Your task to perform on an android device: open wifi settings Image 0: 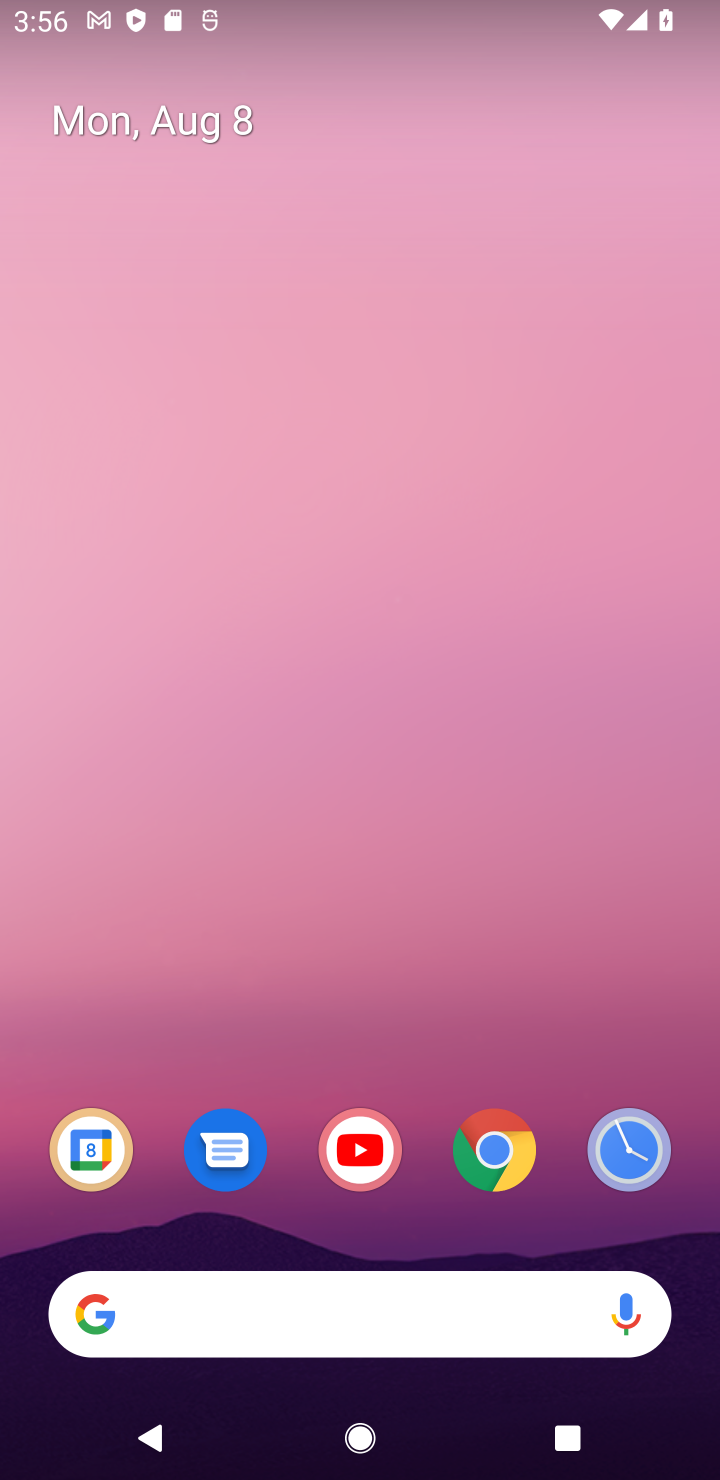
Step 0: drag from (425, 1245) to (431, 172)
Your task to perform on an android device: open wifi settings Image 1: 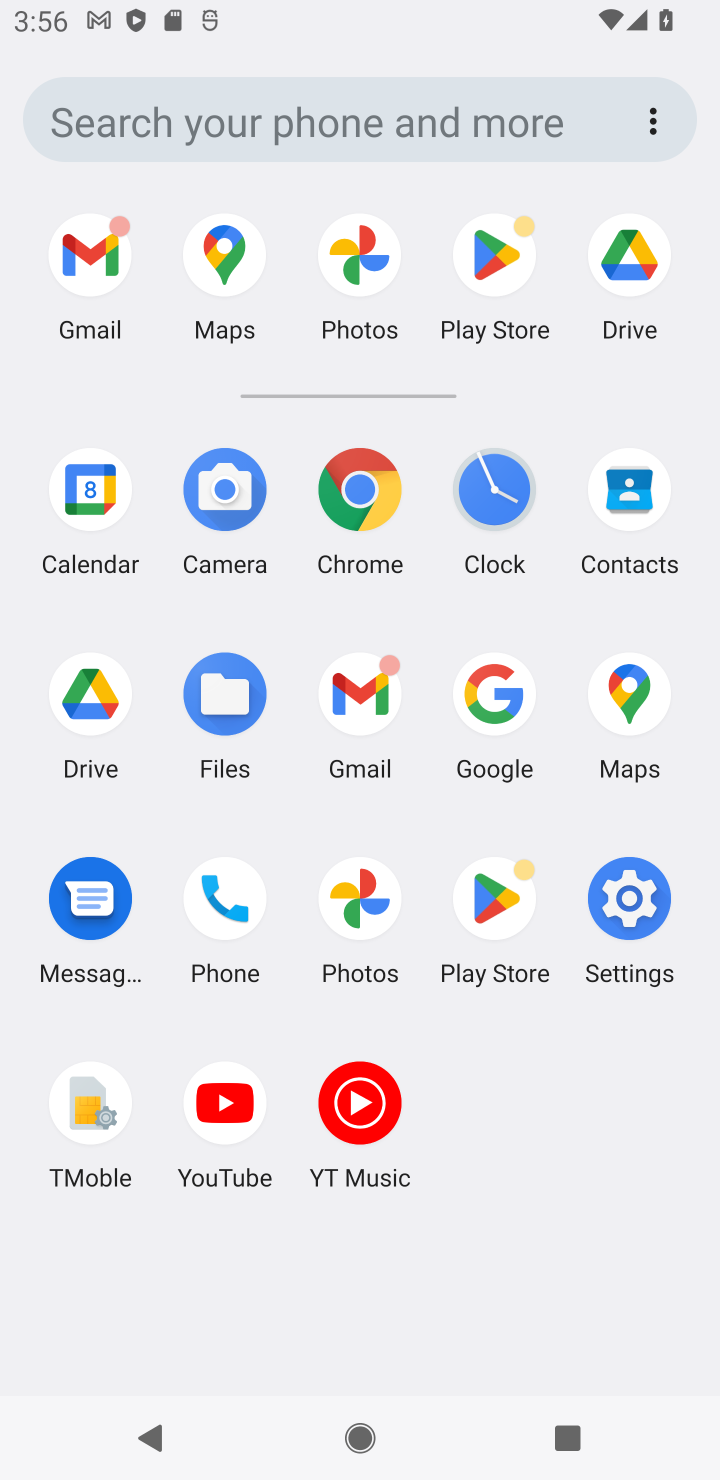
Step 1: click (628, 948)
Your task to perform on an android device: open wifi settings Image 2: 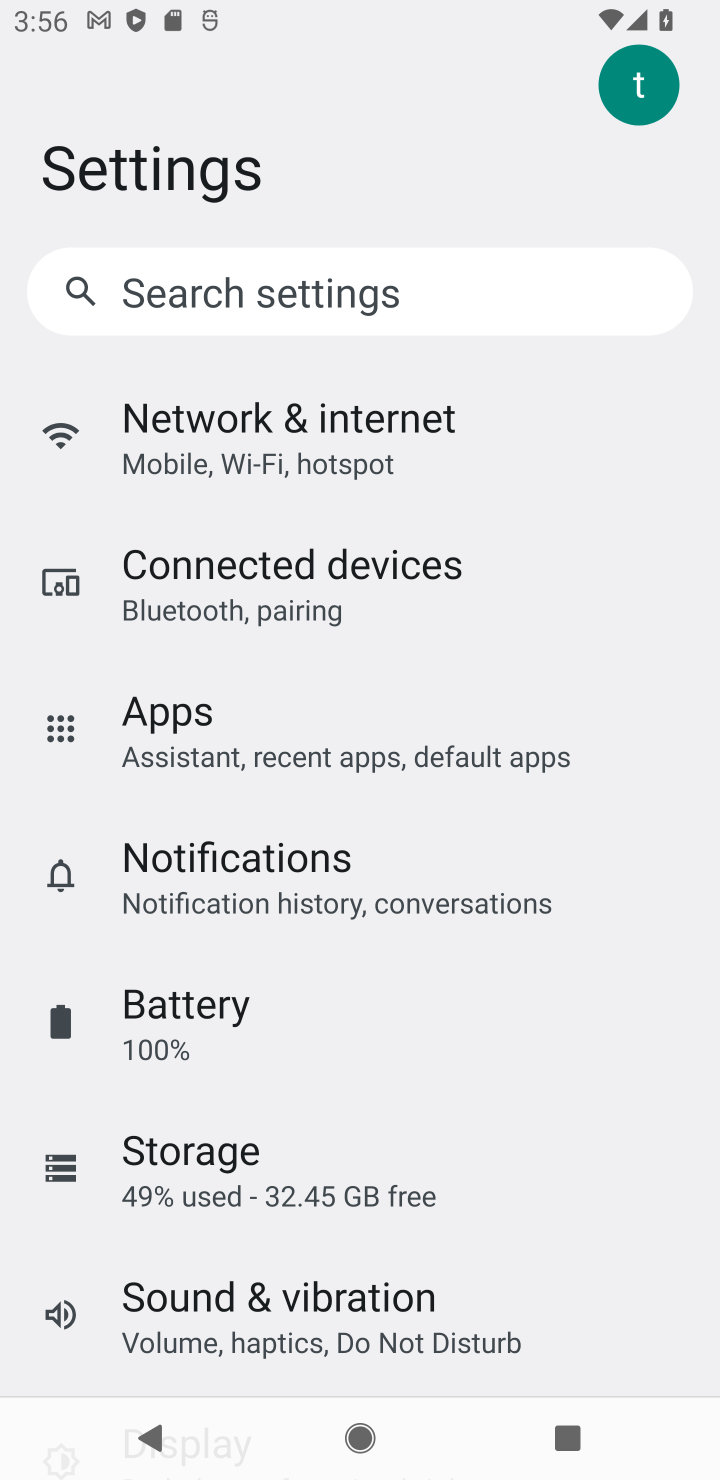
Step 2: click (305, 395)
Your task to perform on an android device: open wifi settings Image 3: 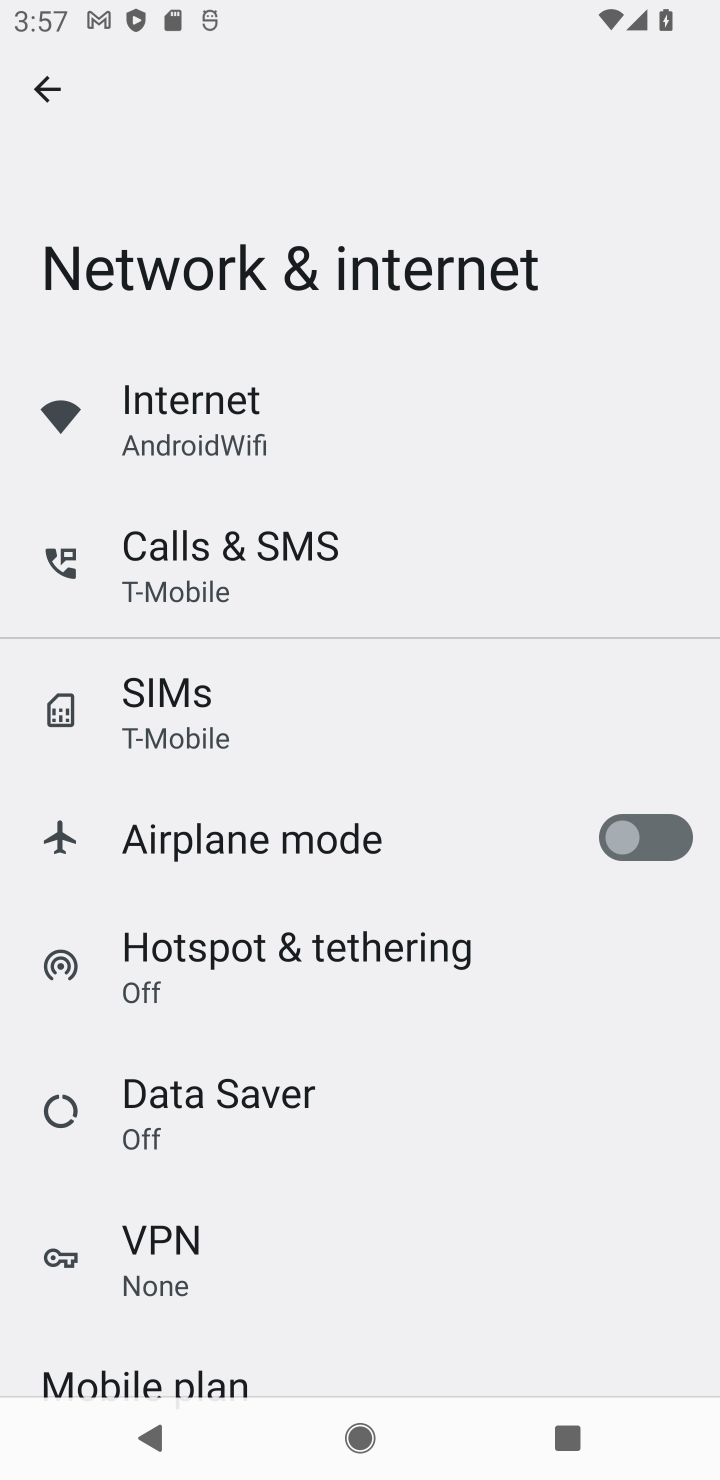
Step 3: task complete